Your task to perform on an android device: Open the map Image 0: 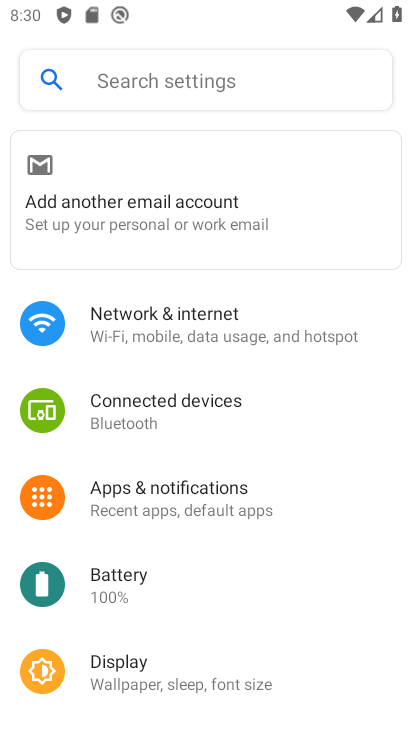
Step 0: press home button
Your task to perform on an android device: Open the map Image 1: 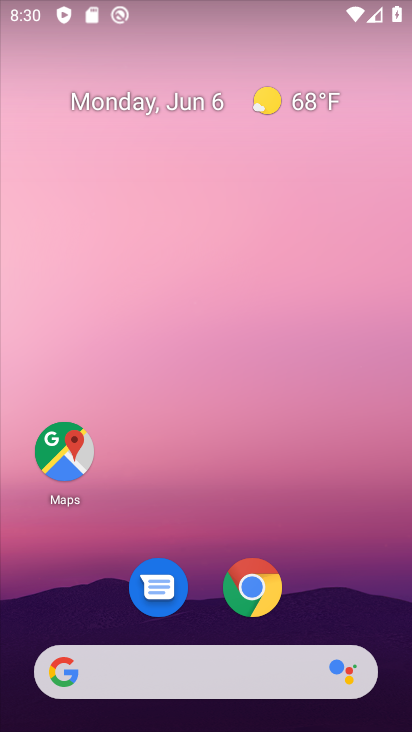
Step 1: click (55, 471)
Your task to perform on an android device: Open the map Image 2: 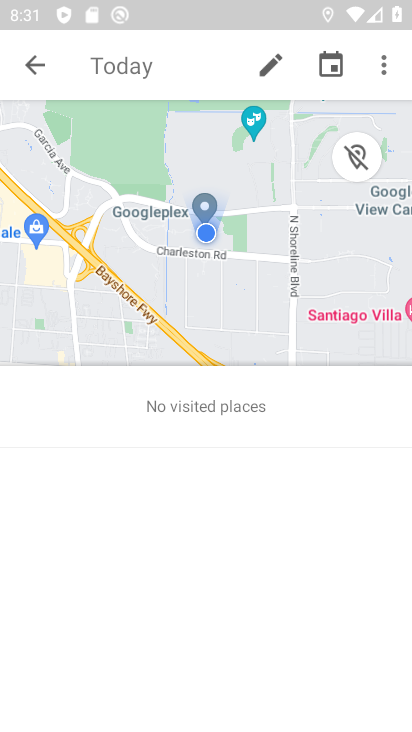
Step 2: task complete